Your task to perform on an android device: empty trash in google photos Image 0: 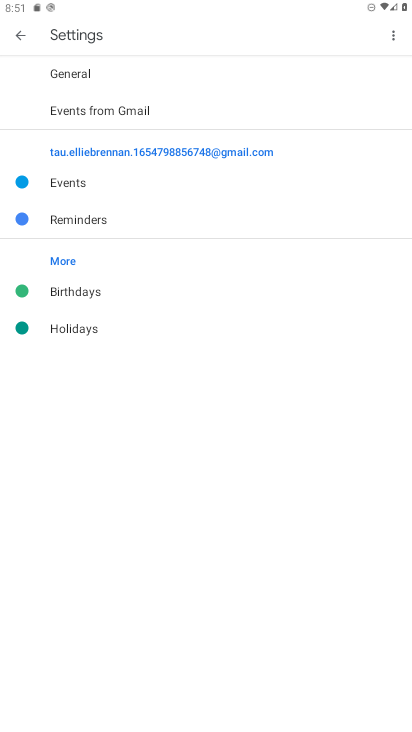
Step 0: press home button
Your task to perform on an android device: empty trash in google photos Image 1: 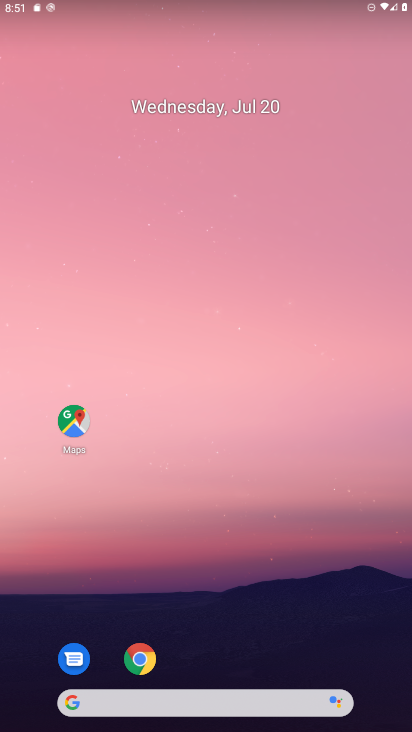
Step 1: drag from (225, 614) to (199, 22)
Your task to perform on an android device: empty trash in google photos Image 2: 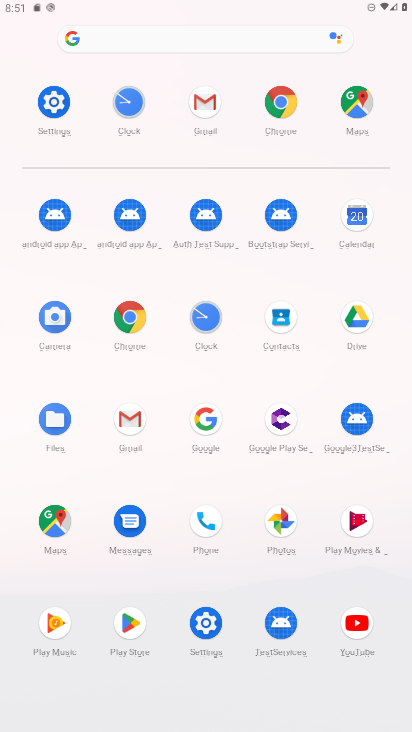
Step 2: click (279, 519)
Your task to perform on an android device: empty trash in google photos Image 3: 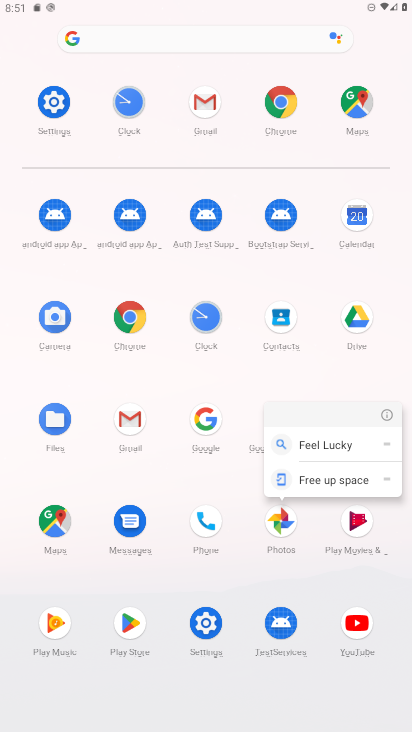
Step 3: click (284, 515)
Your task to perform on an android device: empty trash in google photos Image 4: 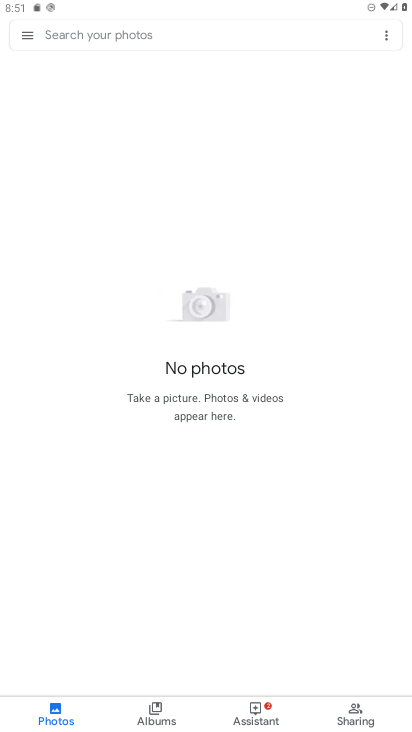
Step 4: click (32, 34)
Your task to perform on an android device: empty trash in google photos Image 5: 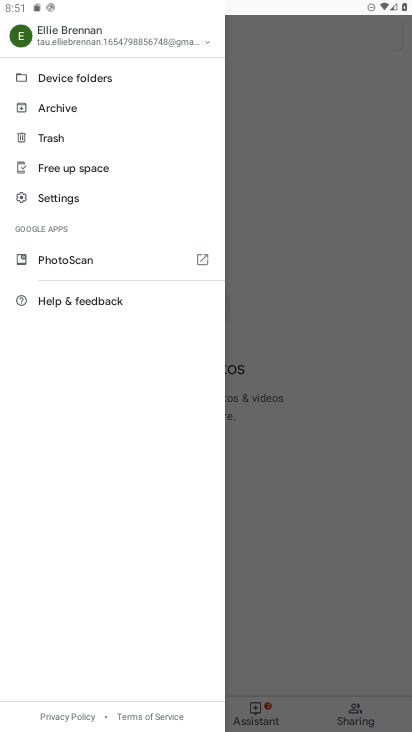
Step 5: click (47, 127)
Your task to perform on an android device: empty trash in google photos Image 6: 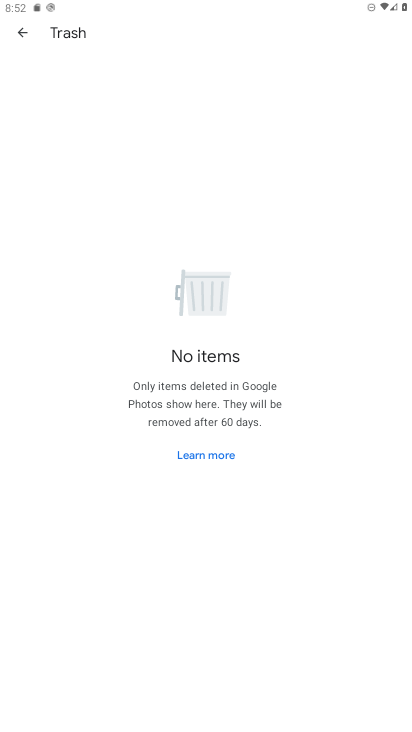
Step 6: task complete